Your task to perform on an android device: Go to sound settings Image 0: 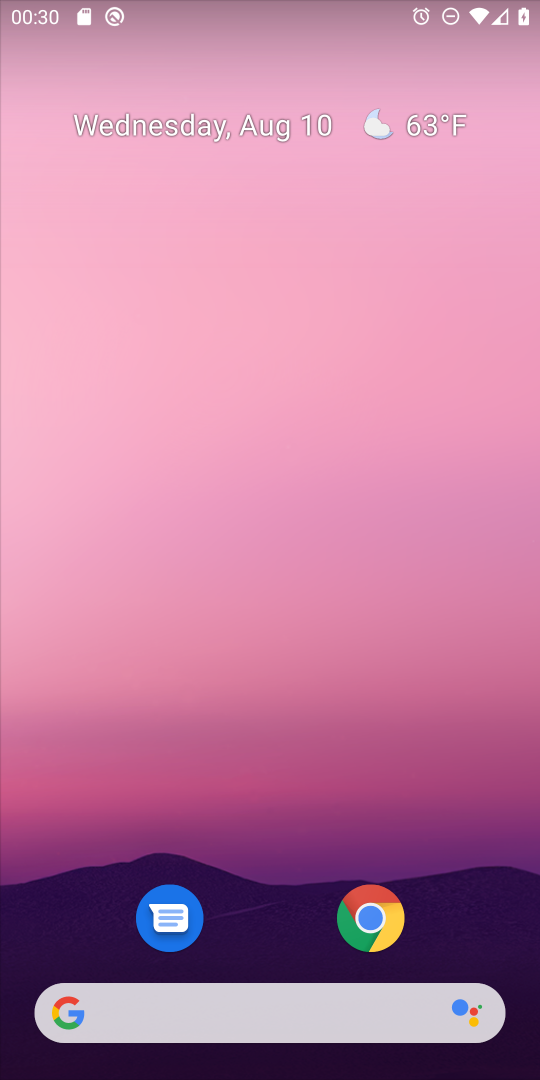
Step 0: drag from (301, 886) to (532, 109)
Your task to perform on an android device: Go to sound settings Image 1: 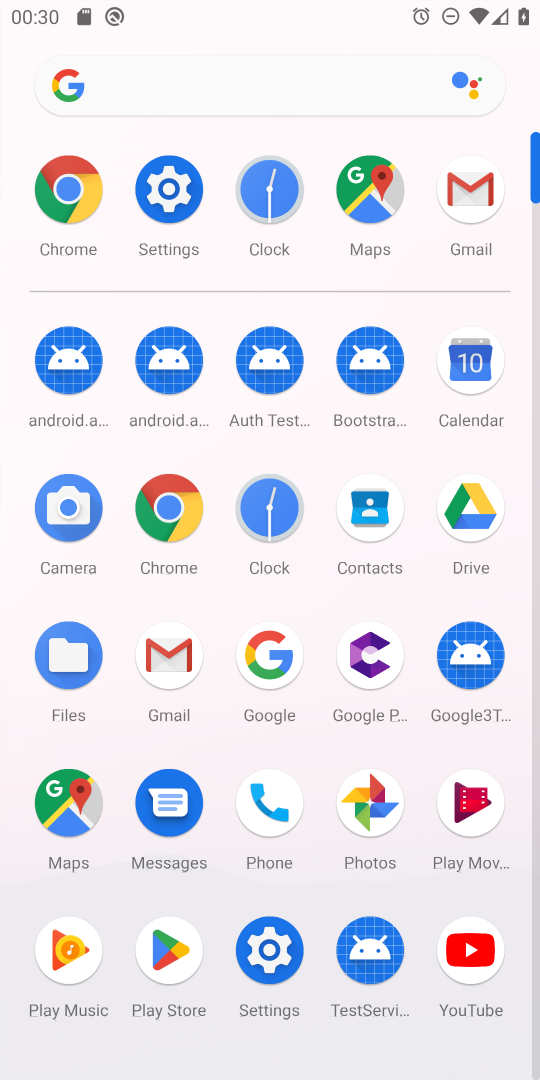
Step 1: click (260, 954)
Your task to perform on an android device: Go to sound settings Image 2: 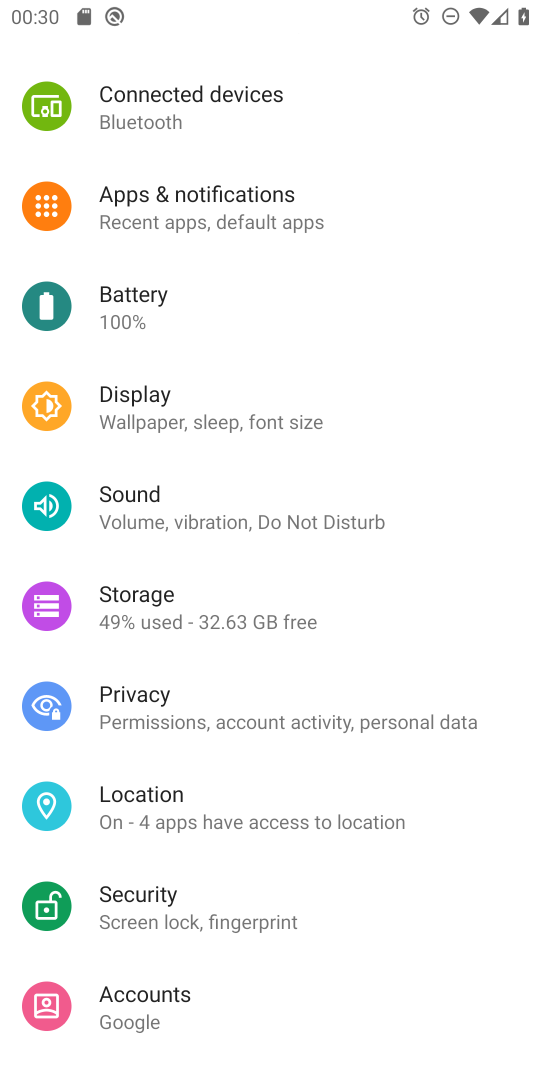
Step 2: click (215, 509)
Your task to perform on an android device: Go to sound settings Image 3: 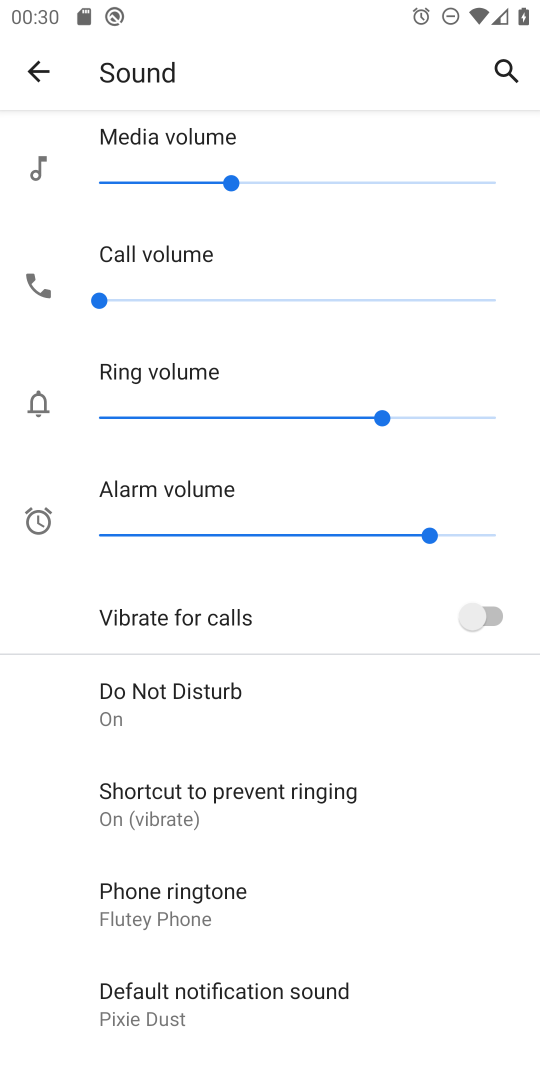
Step 3: task complete